Your task to perform on an android device: empty trash in google photos Image 0: 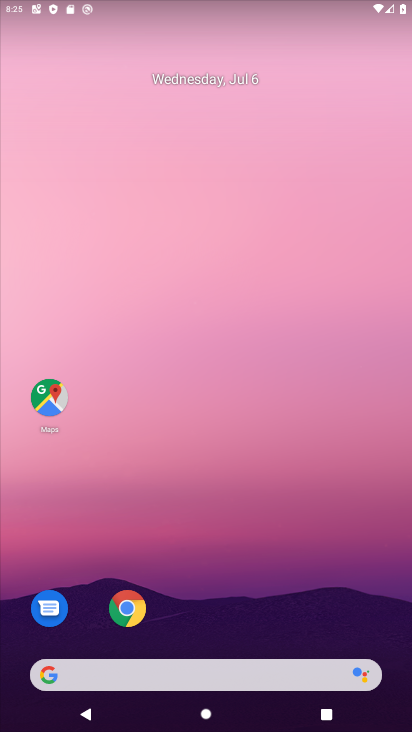
Step 0: drag from (245, 623) to (245, 303)
Your task to perform on an android device: empty trash in google photos Image 1: 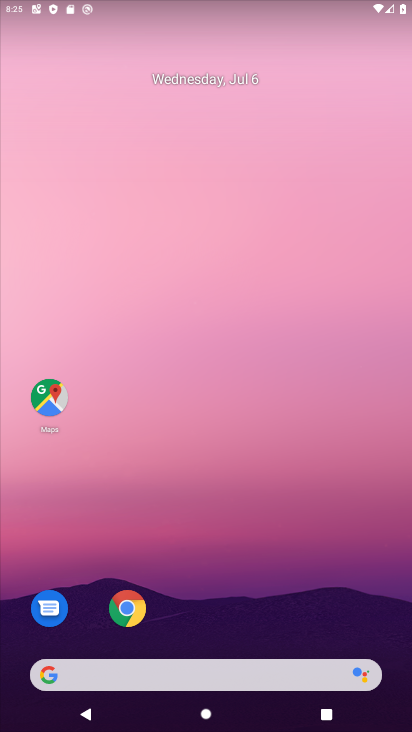
Step 1: drag from (217, 653) to (257, 235)
Your task to perform on an android device: empty trash in google photos Image 2: 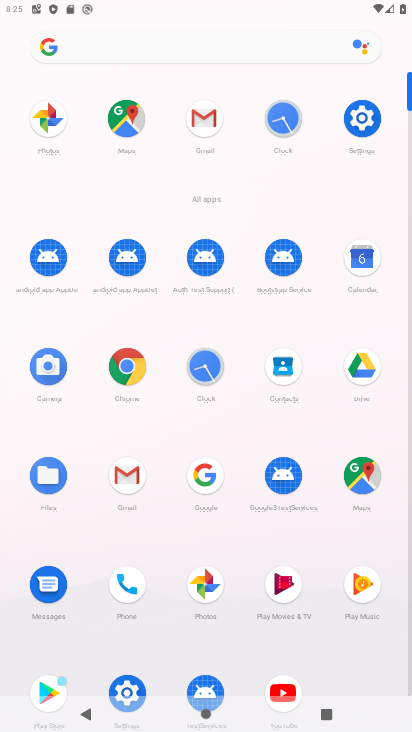
Step 2: click (212, 582)
Your task to perform on an android device: empty trash in google photos Image 3: 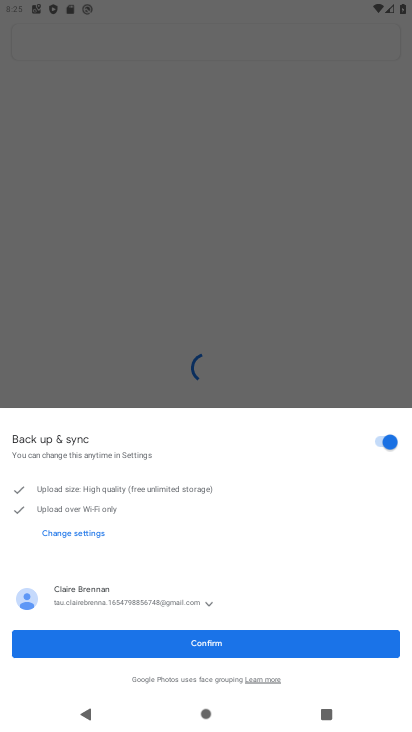
Step 3: click (200, 649)
Your task to perform on an android device: empty trash in google photos Image 4: 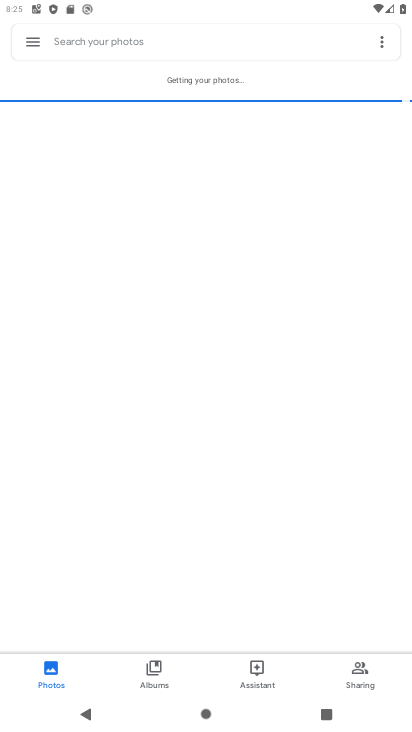
Step 4: click (32, 43)
Your task to perform on an android device: empty trash in google photos Image 5: 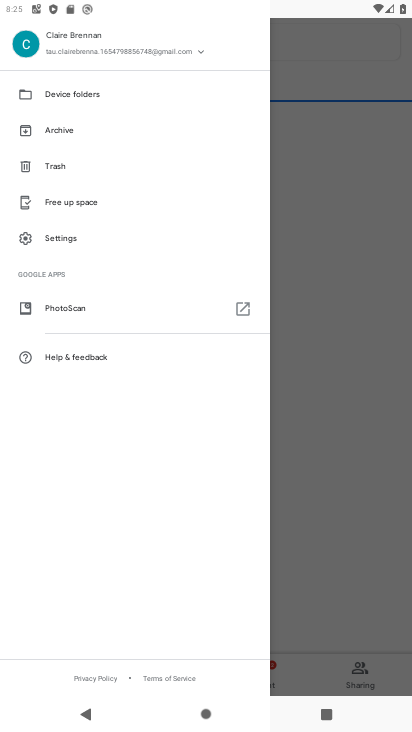
Step 5: click (41, 167)
Your task to perform on an android device: empty trash in google photos Image 6: 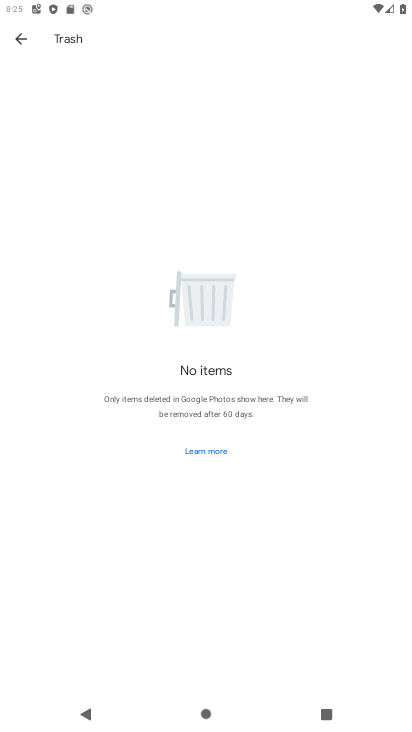
Step 6: task complete